Your task to perform on an android device: check android version Image 0: 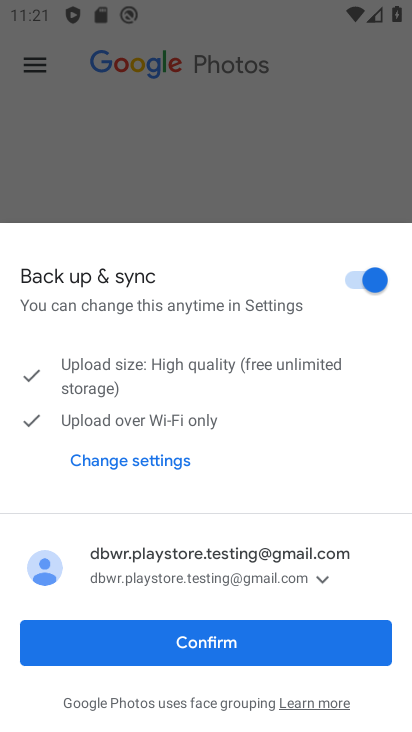
Step 0: press home button
Your task to perform on an android device: check android version Image 1: 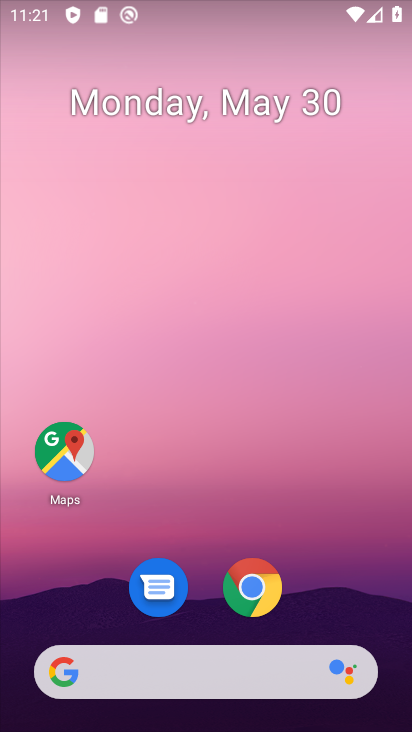
Step 1: drag from (217, 620) to (264, 173)
Your task to perform on an android device: check android version Image 2: 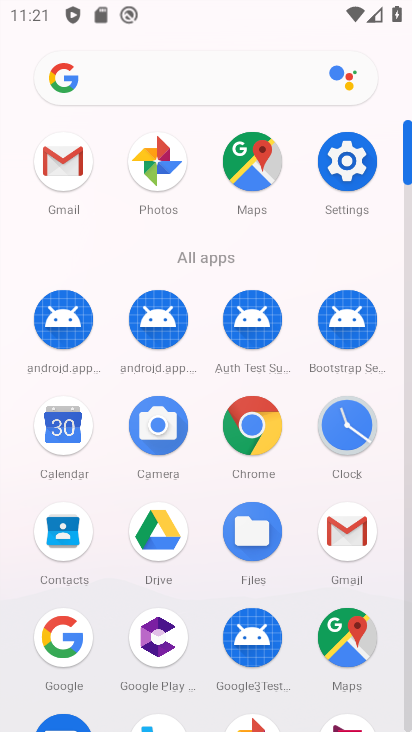
Step 2: click (344, 148)
Your task to perform on an android device: check android version Image 3: 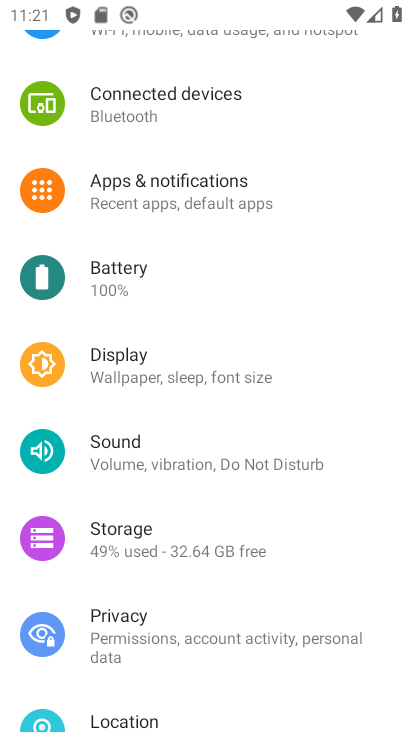
Step 3: drag from (127, 648) to (276, 54)
Your task to perform on an android device: check android version Image 4: 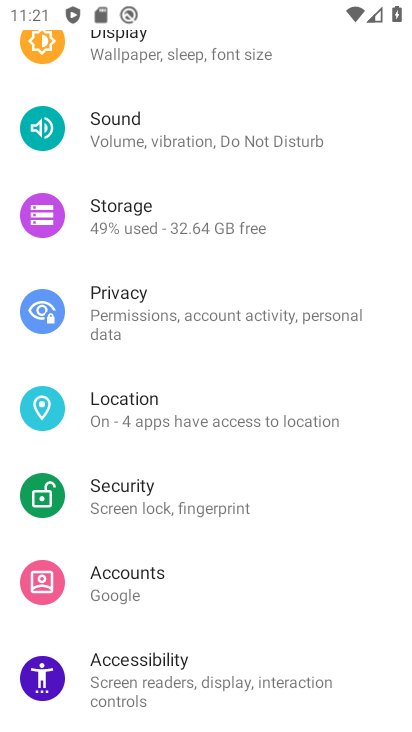
Step 4: drag from (196, 620) to (234, 271)
Your task to perform on an android device: check android version Image 5: 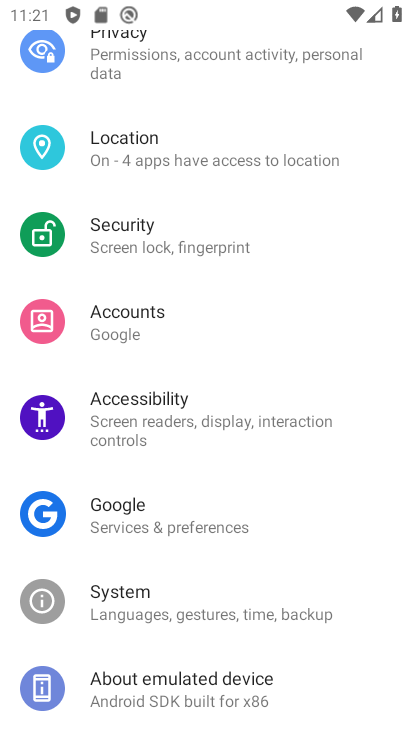
Step 5: click (118, 711)
Your task to perform on an android device: check android version Image 6: 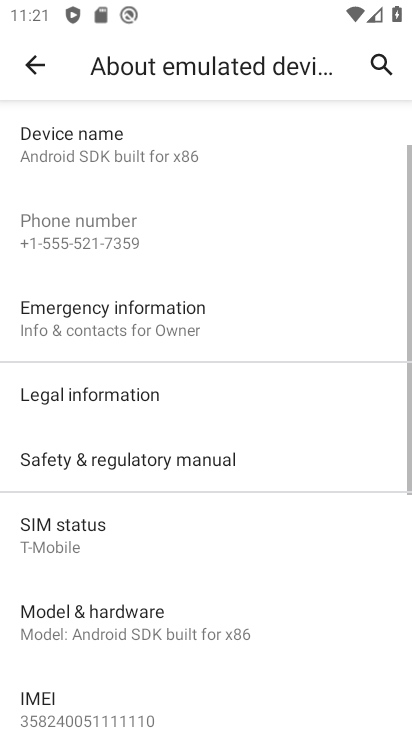
Step 6: click (130, 155)
Your task to perform on an android device: check android version Image 7: 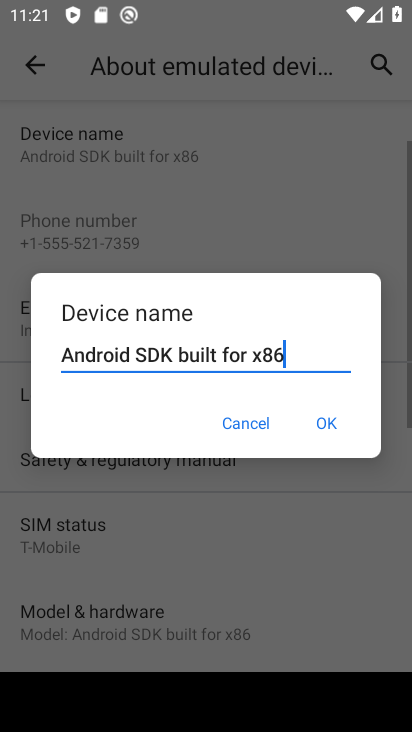
Step 7: click (337, 418)
Your task to perform on an android device: check android version Image 8: 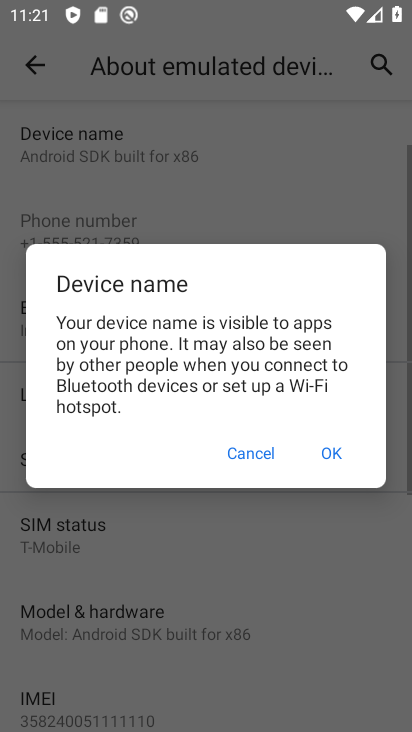
Step 8: click (322, 454)
Your task to perform on an android device: check android version Image 9: 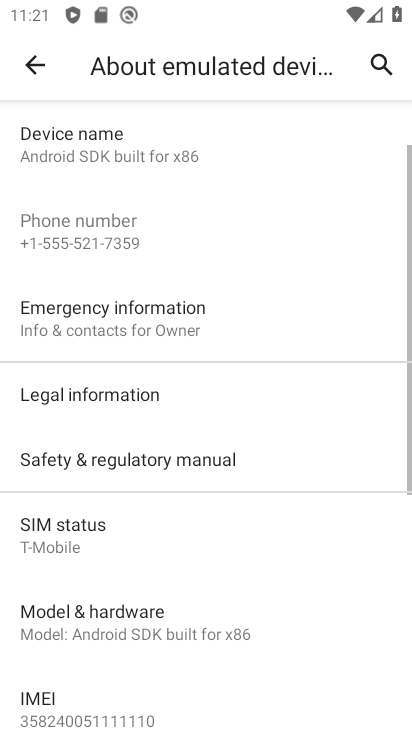
Step 9: drag from (140, 524) to (201, 248)
Your task to perform on an android device: check android version Image 10: 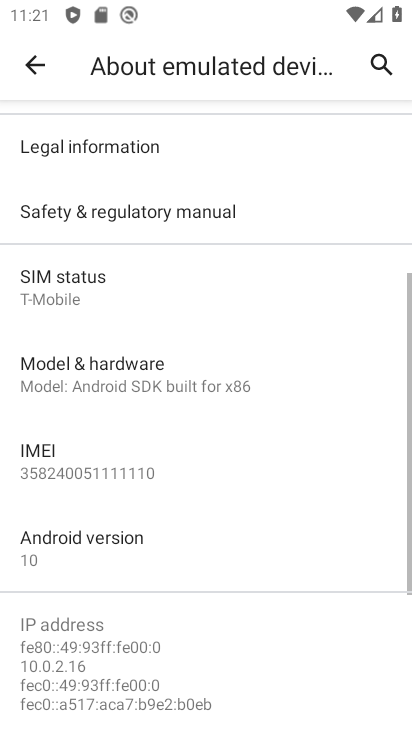
Step 10: click (74, 551)
Your task to perform on an android device: check android version Image 11: 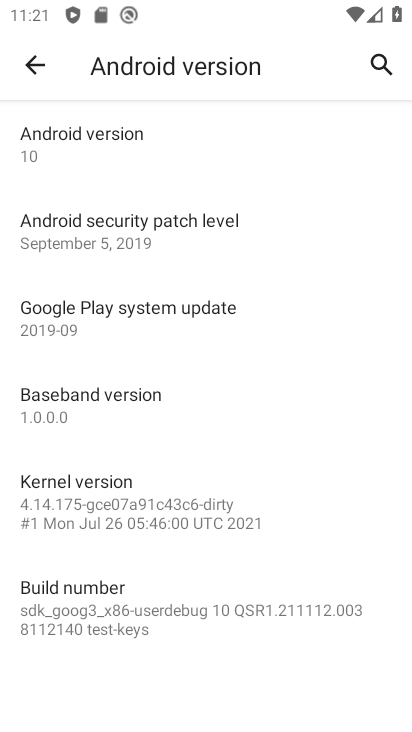
Step 11: task complete